Your task to perform on an android device: open app "Calculator" Image 0: 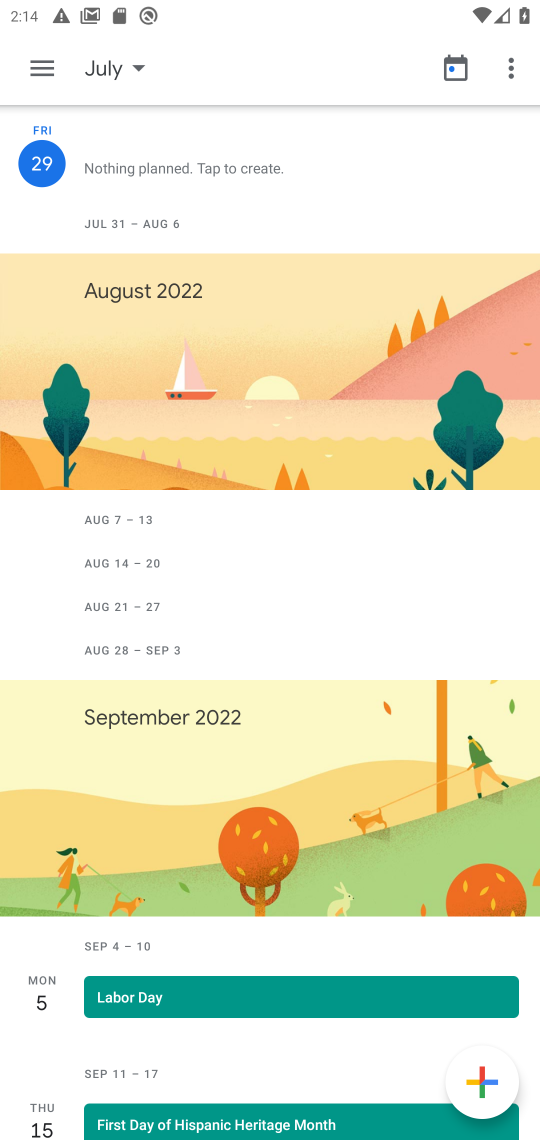
Step 0: press home button
Your task to perform on an android device: open app "Calculator" Image 1: 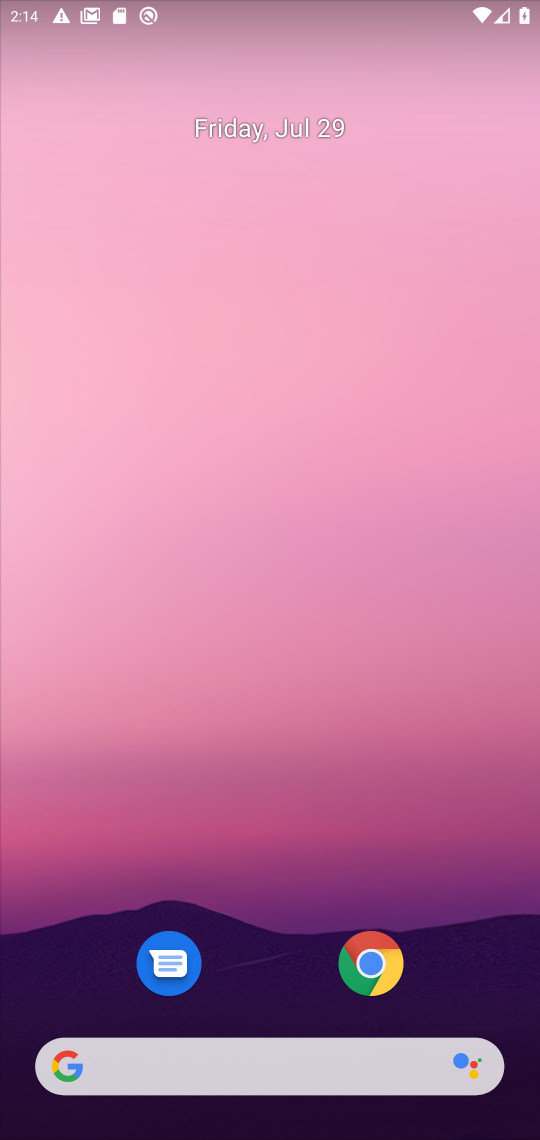
Step 1: drag from (250, 930) to (253, 143)
Your task to perform on an android device: open app "Calculator" Image 2: 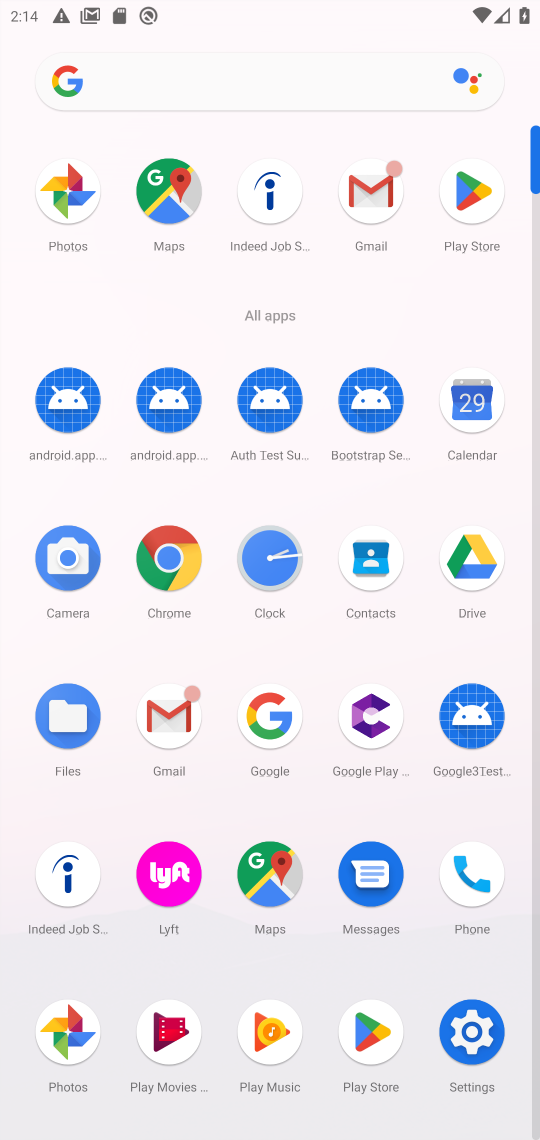
Step 2: click (459, 183)
Your task to perform on an android device: open app "Calculator" Image 3: 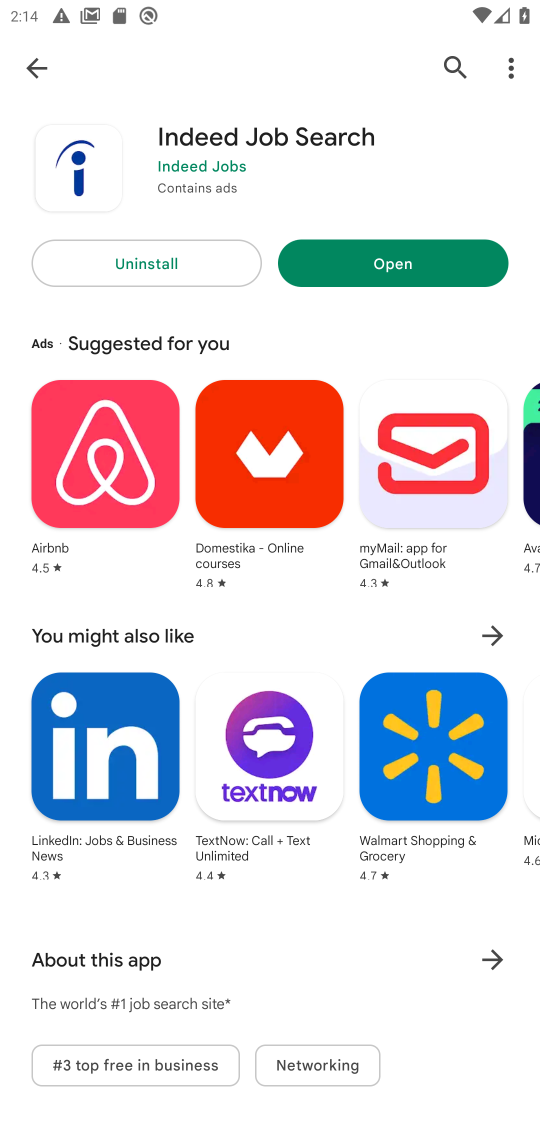
Step 3: click (445, 68)
Your task to perform on an android device: open app "Calculator" Image 4: 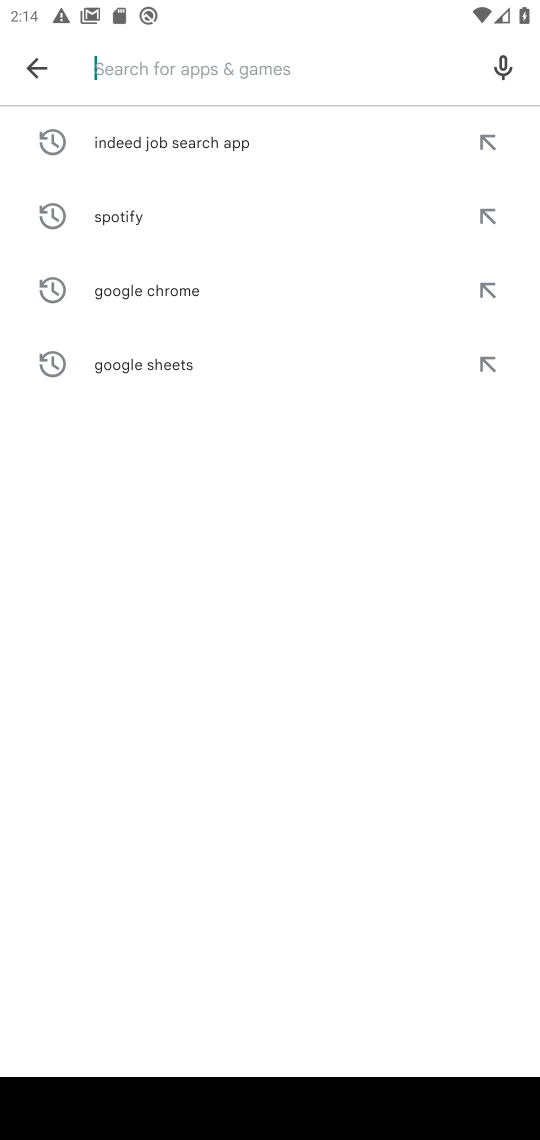
Step 4: type "calculator"
Your task to perform on an android device: open app "Calculator" Image 5: 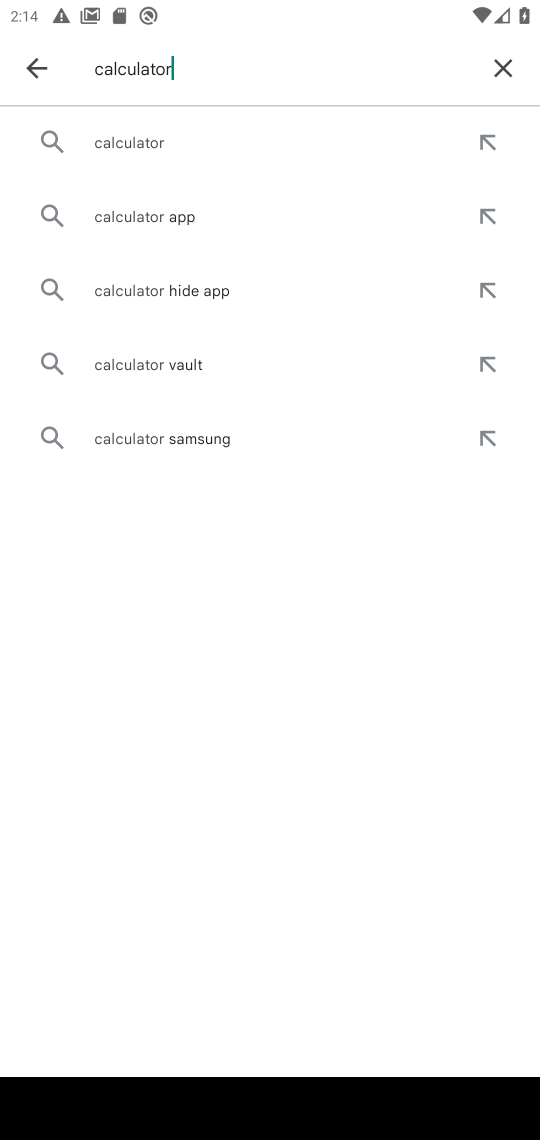
Step 5: click (219, 146)
Your task to perform on an android device: open app "Calculator" Image 6: 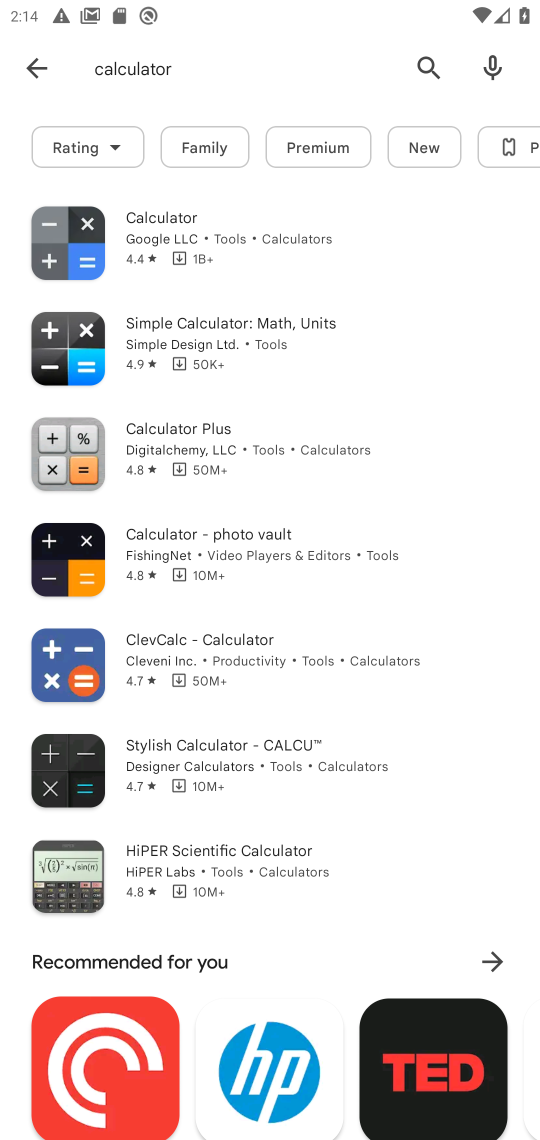
Step 6: click (174, 216)
Your task to perform on an android device: open app "Calculator" Image 7: 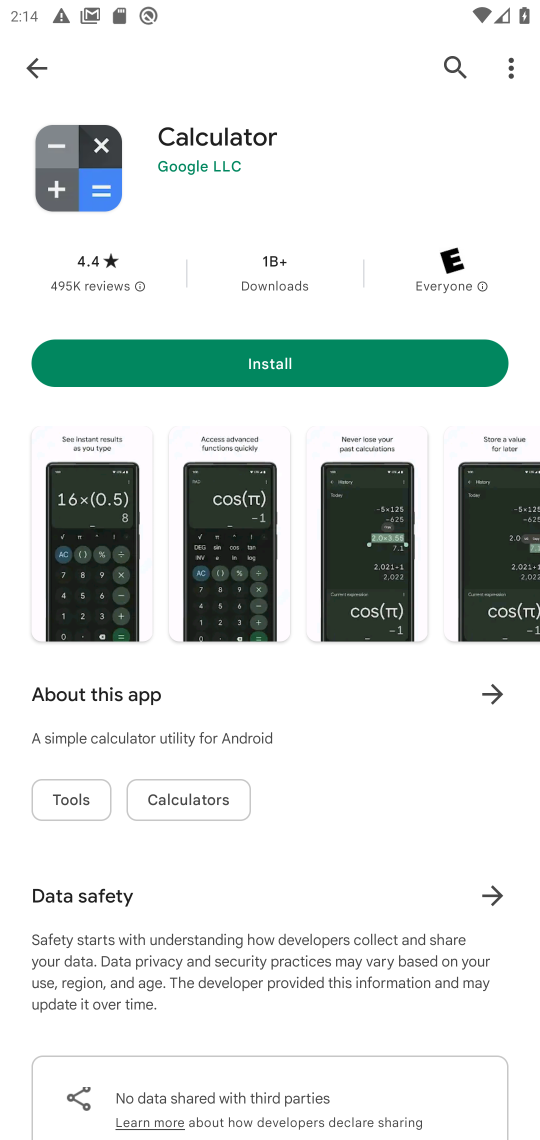
Step 7: task complete